Your task to perform on an android device: Open Wikipedia Image 0: 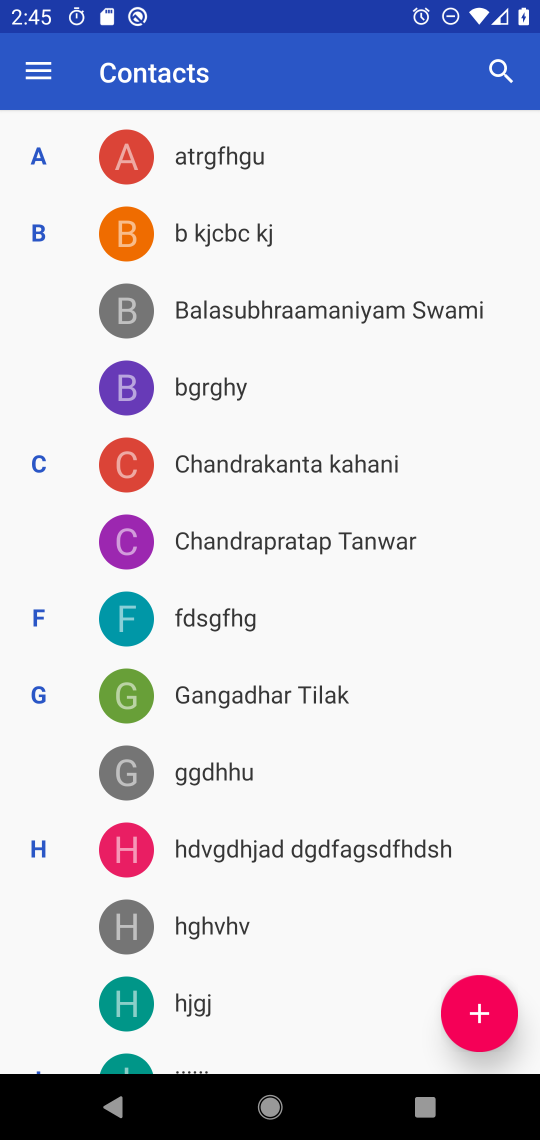
Step 0: press home button
Your task to perform on an android device: Open Wikipedia Image 1: 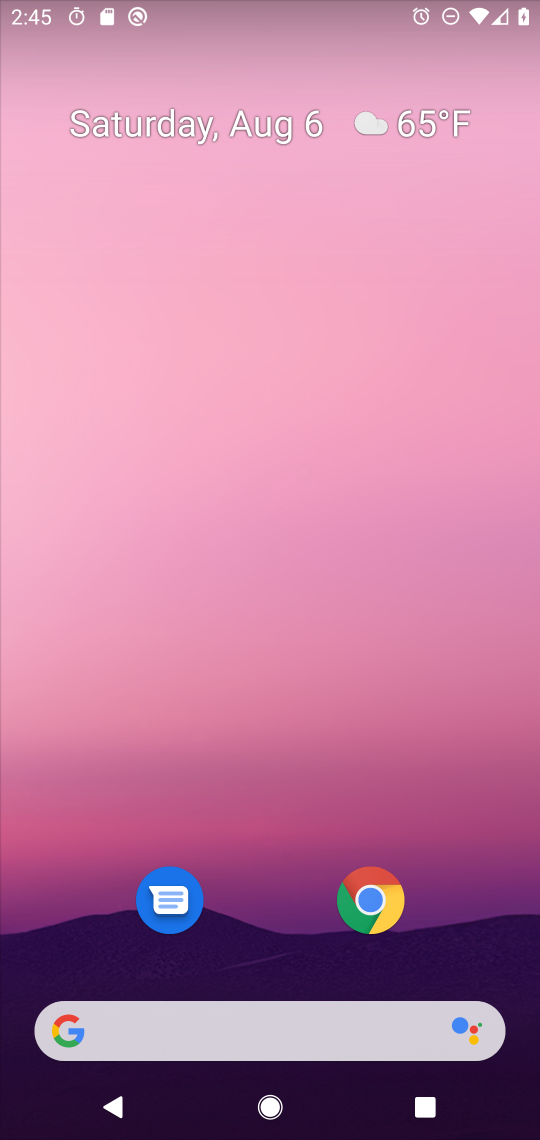
Step 1: click (369, 914)
Your task to perform on an android device: Open Wikipedia Image 2: 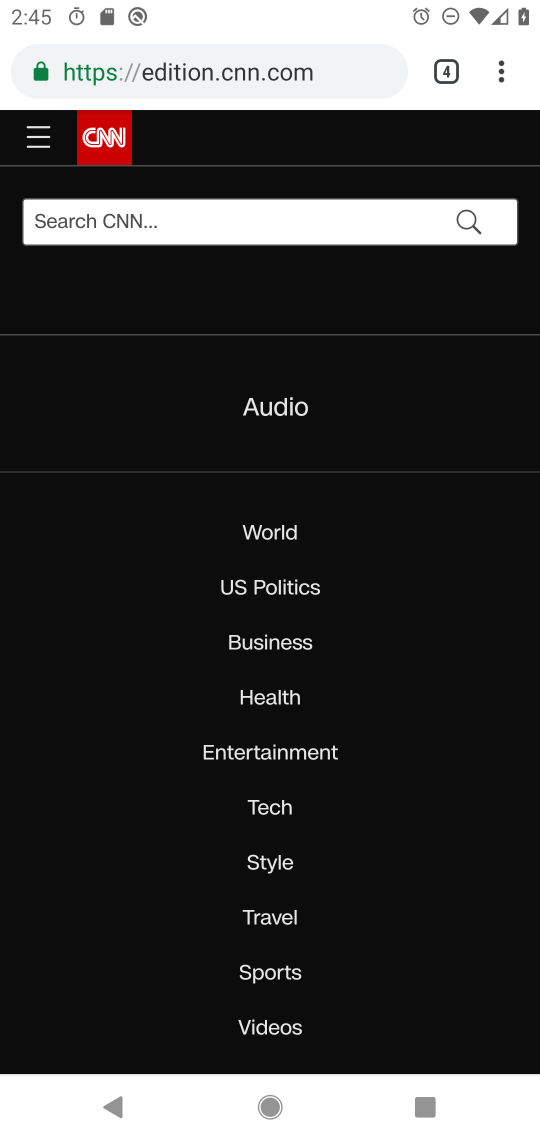
Step 2: click (500, 80)
Your task to perform on an android device: Open Wikipedia Image 3: 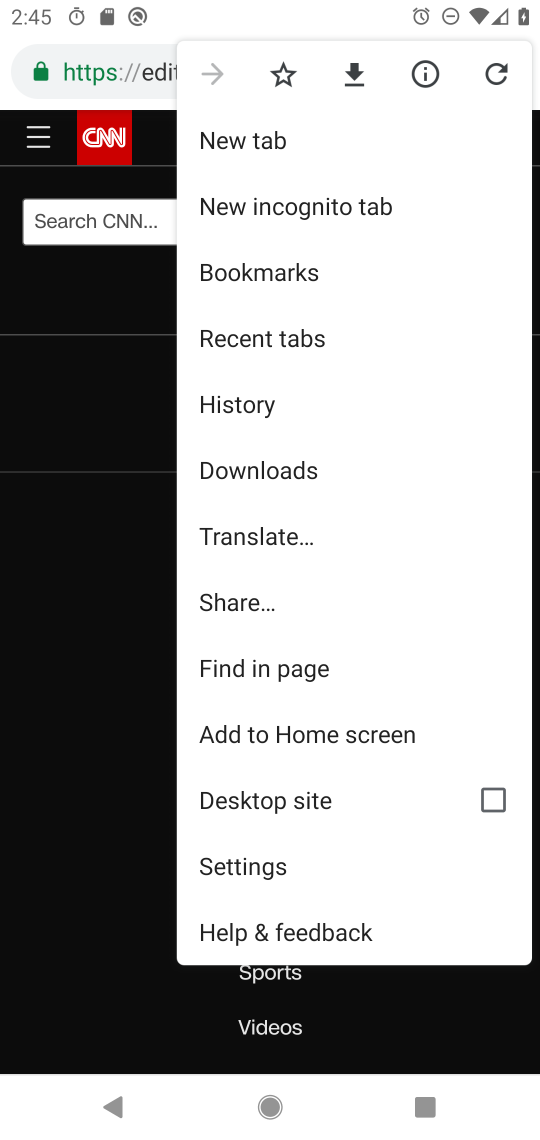
Step 3: click (243, 132)
Your task to perform on an android device: Open Wikipedia Image 4: 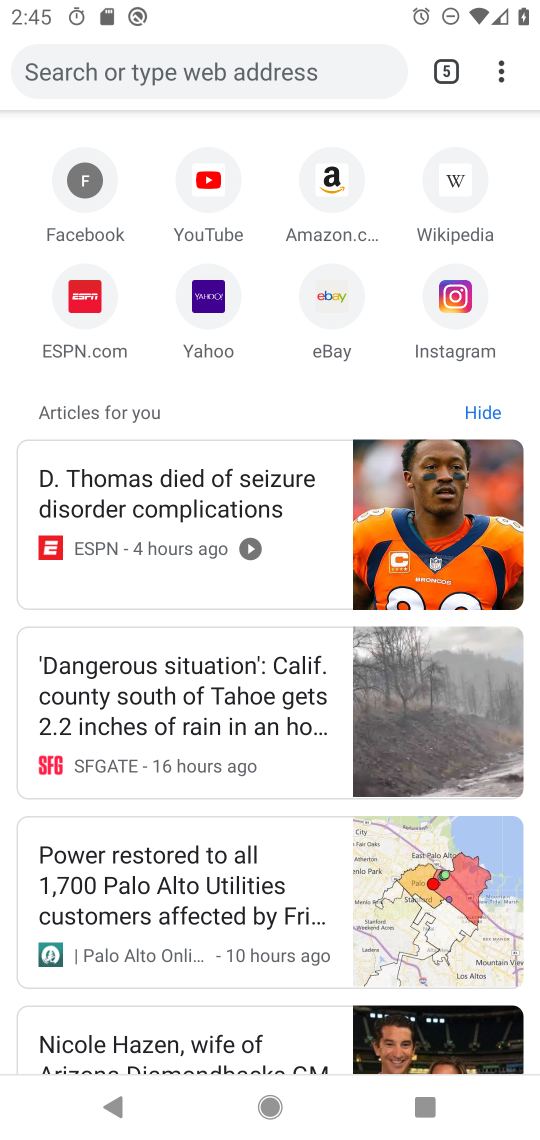
Step 4: click (451, 187)
Your task to perform on an android device: Open Wikipedia Image 5: 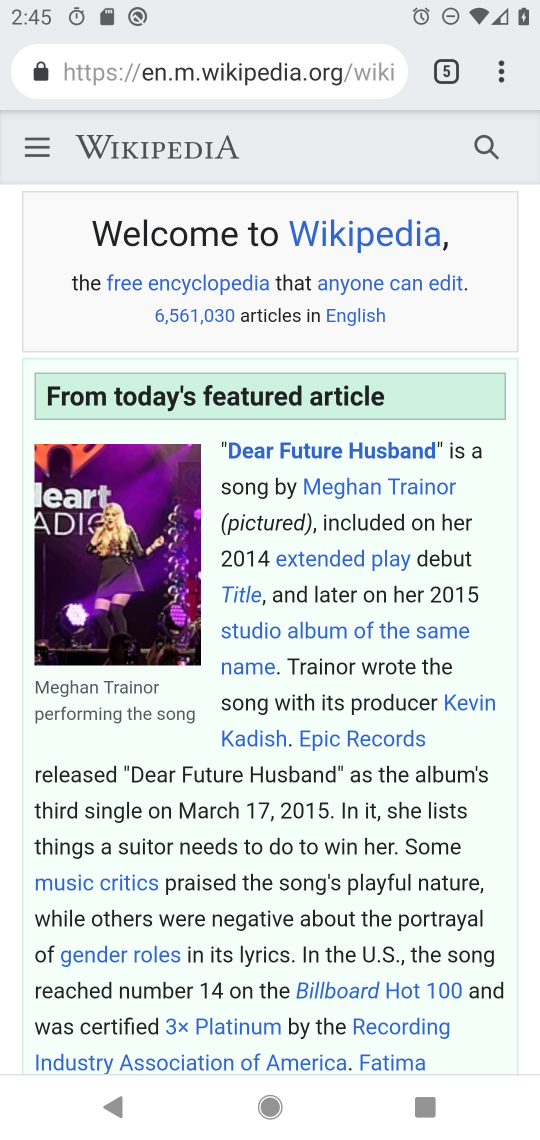
Step 5: task complete